Your task to perform on an android device: check android version Image 0: 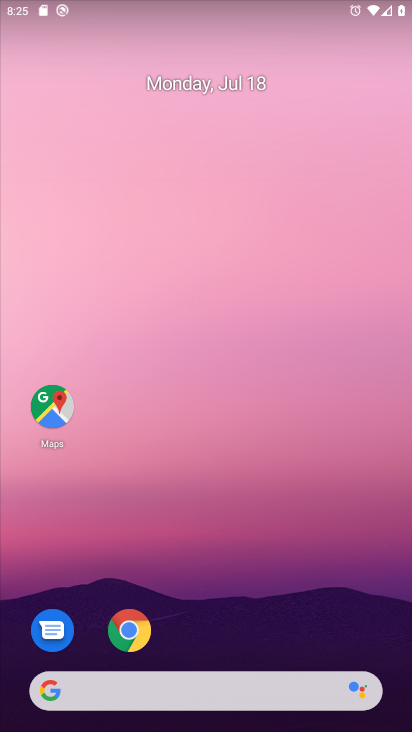
Step 0: drag from (227, 640) to (275, 108)
Your task to perform on an android device: check android version Image 1: 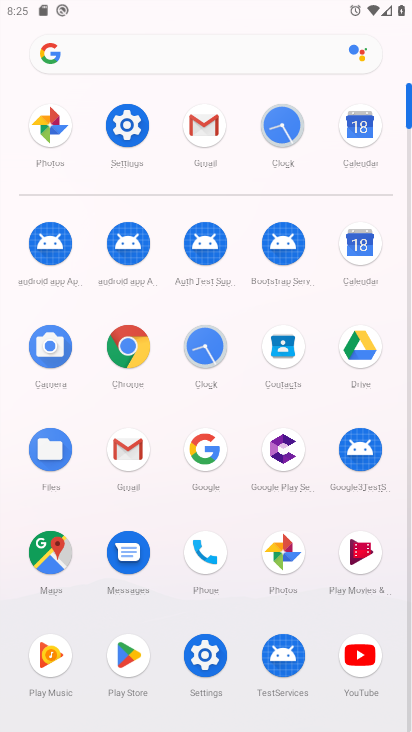
Step 1: click (128, 128)
Your task to perform on an android device: check android version Image 2: 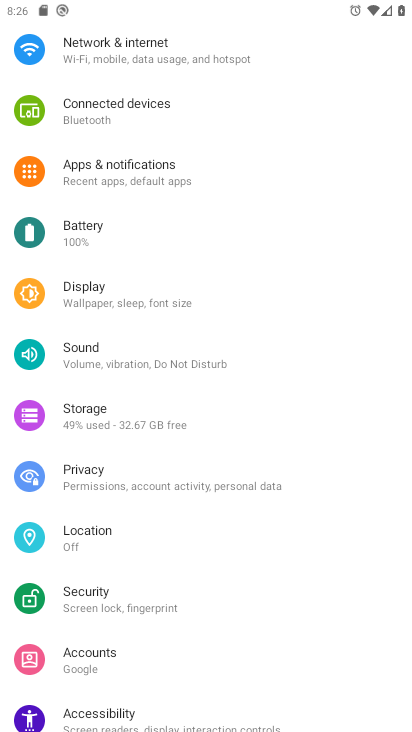
Step 2: drag from (199, 695) to (217, 186)
Your task to perform on an android device: check android version Image 3: 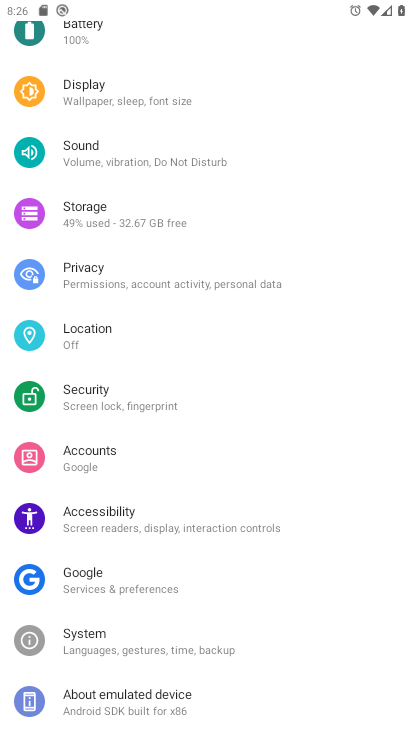
Step 3: drag from (154, 684) to (208, 302)
Your task to perform on an android device: check android version Image 4: 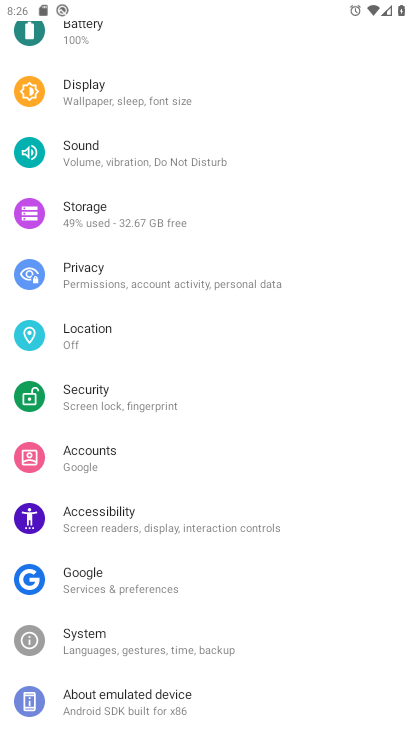
Step 4: click (144, 687)
Your task to perform on an android device: check android version Image 5: 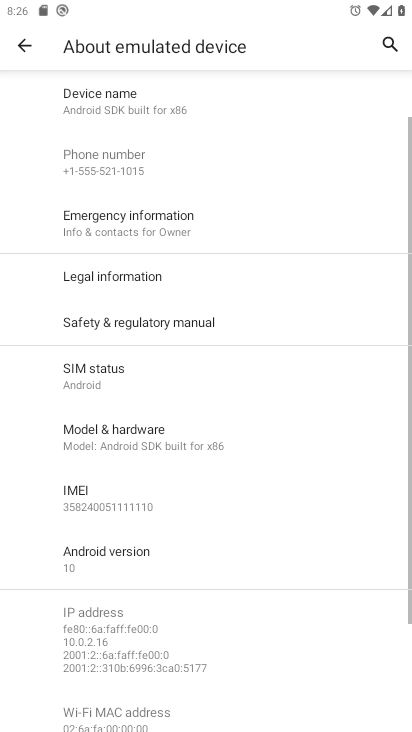
Step 5: click (154, 563)
Your task to perform on an android device: check android version Image 6: 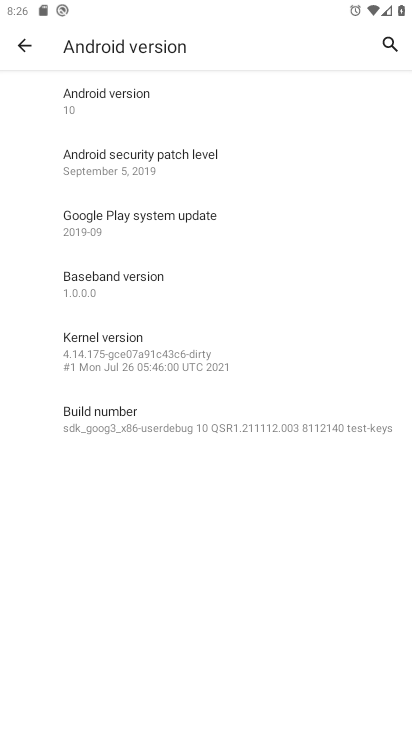
Step 6: click (166, 103)
Your task to perform on an android device: check android version Image 7: 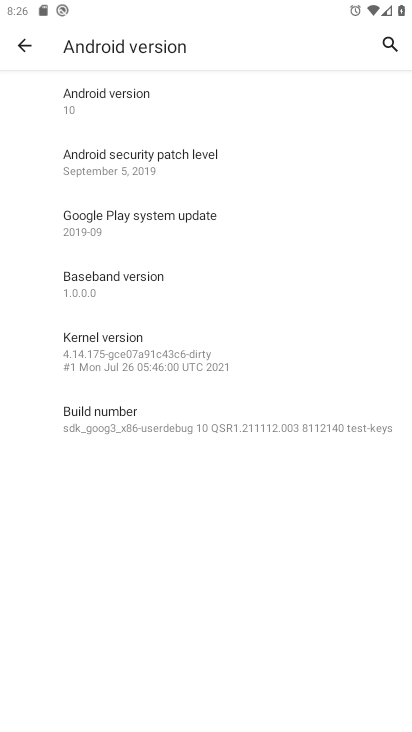
Step 7: click (137, 100)
Your task to perform on an android device: check android version Image 8: 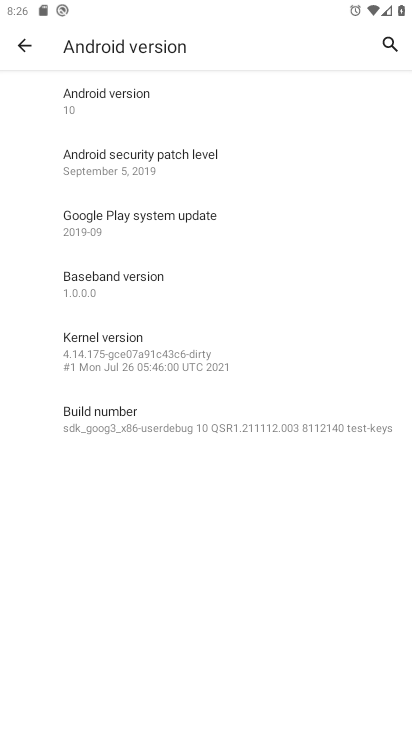
Step 8: task complete